Your task to perform on an android device: Open Reddit.com Image 0: 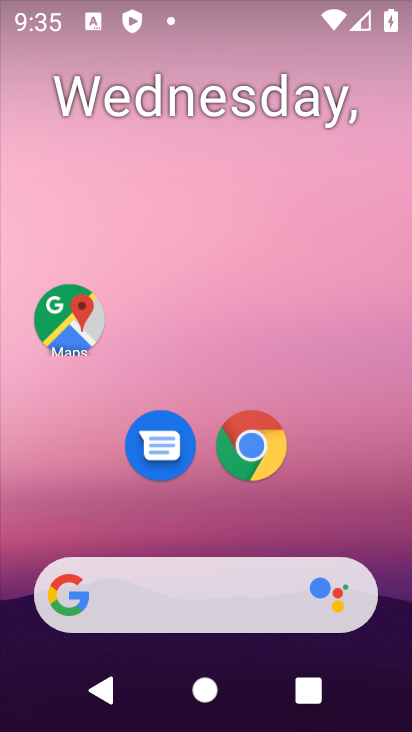
Step 0: drag from (331, 539) to (303, 142)
Your task to perform on an android device: Open Reddit.com Image 1: 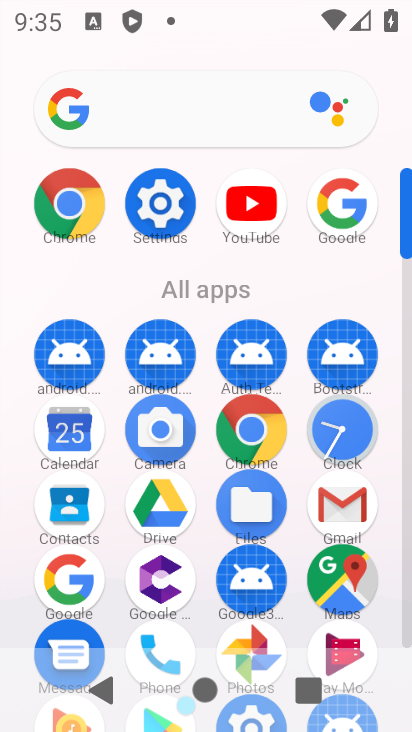
Step 1: click (64, 187)
Your task to perform on an android device: Open Reddit.com Image 2: 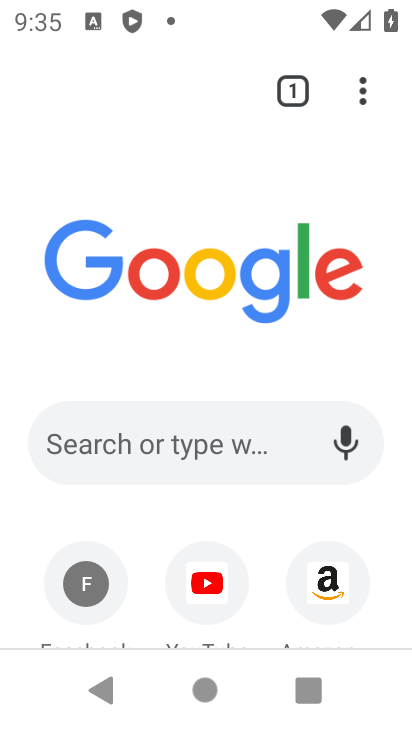
Step 2: drag from (240, 563) to (245, 207)
Your task to perform on an android device: Open Reddit.com Image 3: 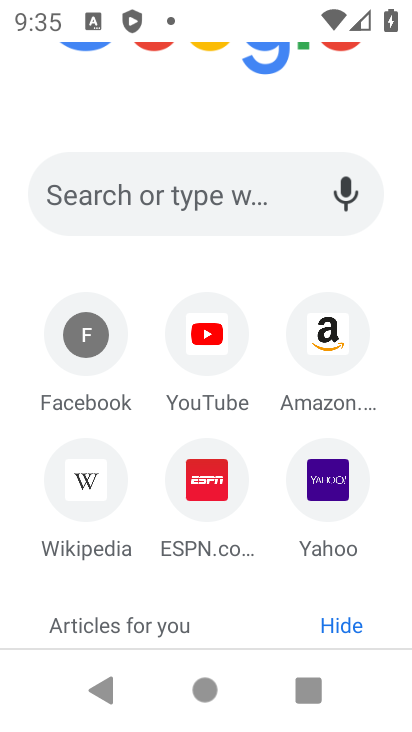
Step 3: drag from (281, 604) to (243, 292)
Your task to perform on an android device: Open Reddit.com Image 4: 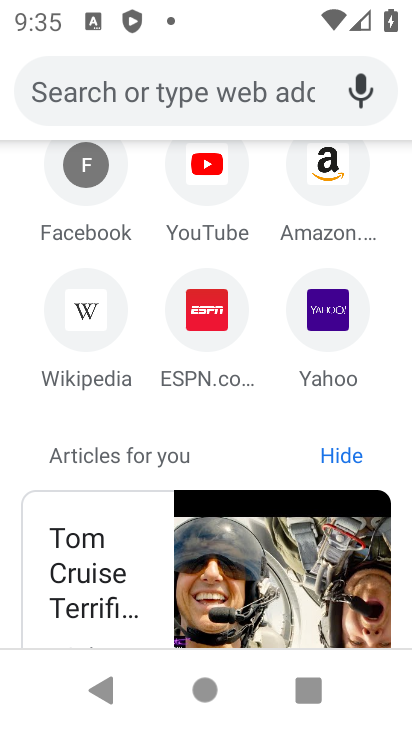
Step 4: drag from (250, 378) to (326, 705)
Your task to perform on an android device: Open Reddit.com Image 5: 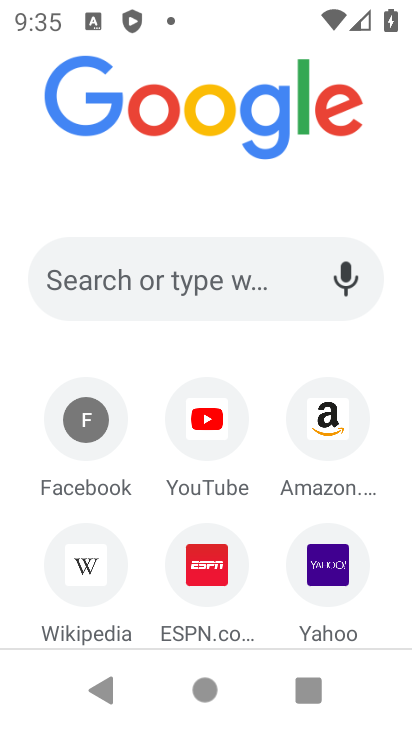
Step 5: click (159, 285)
Your task to perform on an android device: Open Reddit.com Image 6: 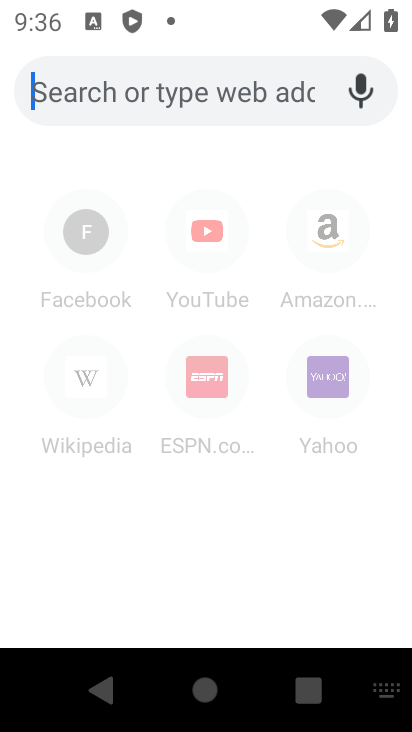
Step 6: type "reddit"
Your task to perform on an android device: Open Reddit.com Image 7: 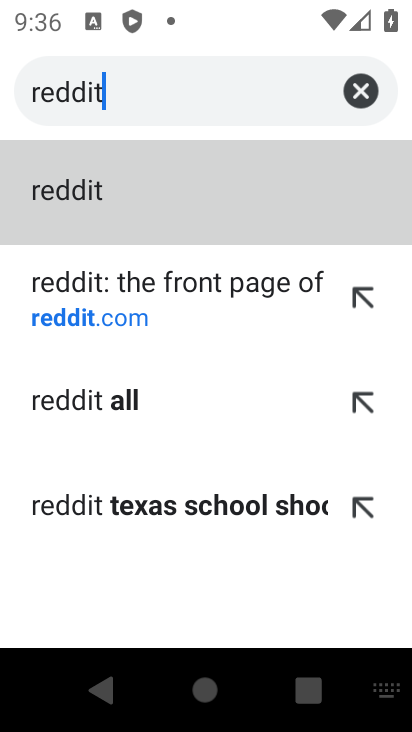
Step 7: click (55, 298)
Your task to perform on an android device: Open Reddit.com Image 8: 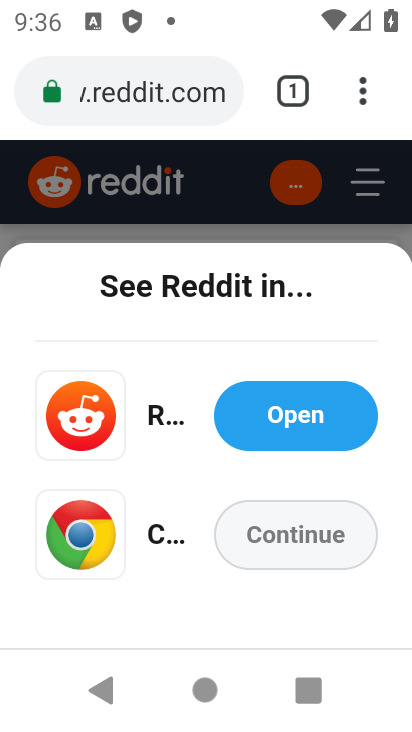
Step 8: task complete